Your task to perform on an android device: Open Google Image 0: 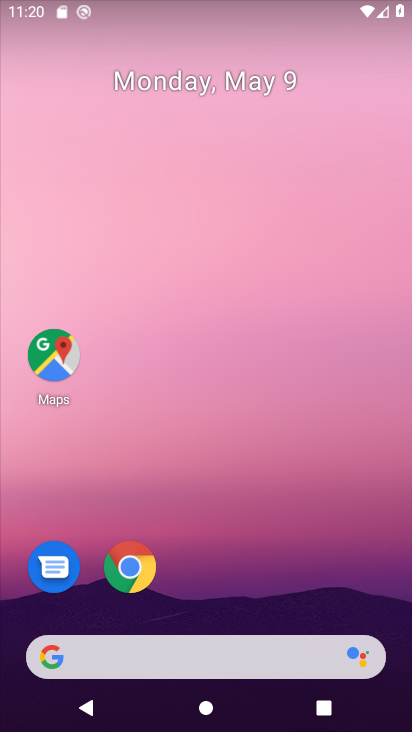
Step 0: click (182, 655)
Your task to perform on an android device: Open Google Image 1: 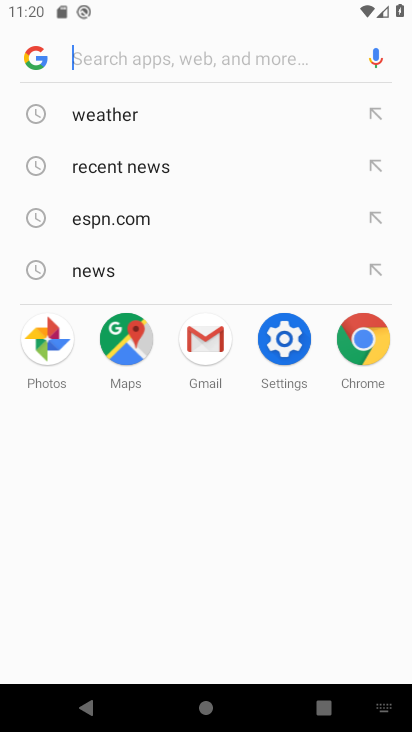
Step 1: click (35, 63)
Your task to perform on an android device: Open Google Image 2: 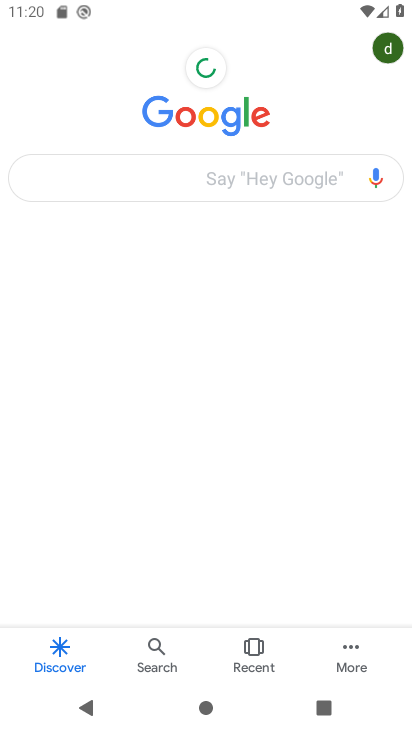
Step 2: task complete